Your task to perform on an android device: Open Youtube and go to "Your channel" Image 0: 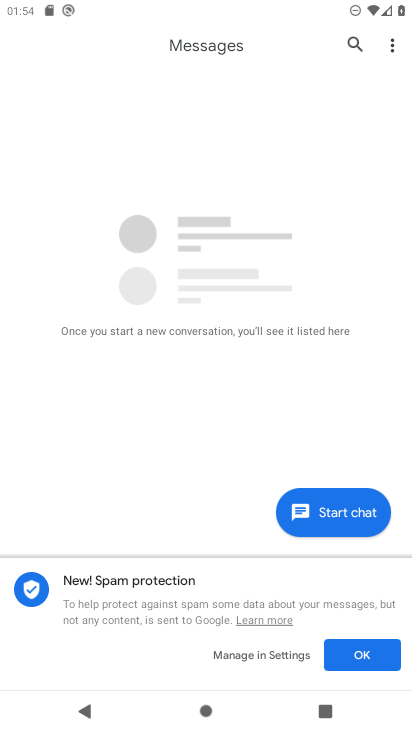
Step 0: press home button
Your task to perform on an android device: Open Youtube and go to "Your channel" Image 1: 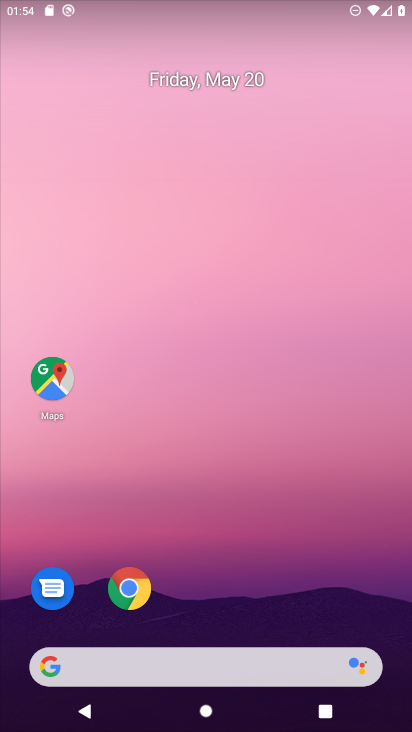
Step 1: drag from (389, 614) to (307, 123)
Your task to perform on an android device: Open Youtube and go to "Your channel" Image 2: 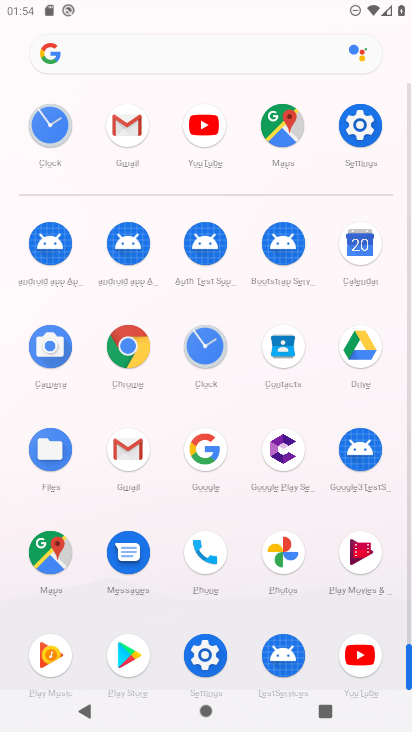
Step 2: click (358, 653)
Your task to perform on an android device: Open Youtube and go to "Your channel" Image 3: 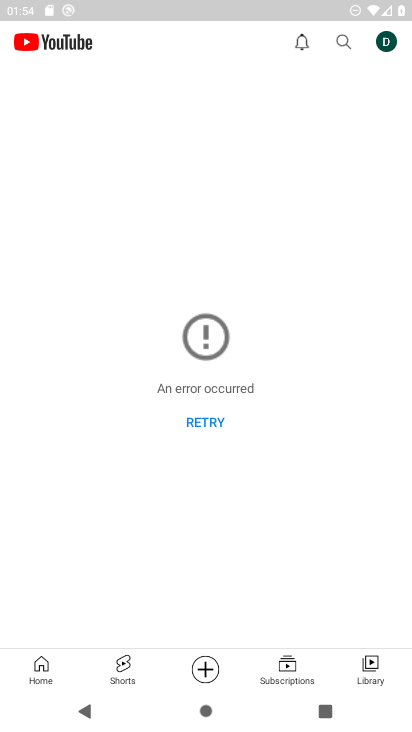
Step 3: click (384, 45)
Your task to perform on an android device: Open Youtube and go to "Your channel" Image 4: 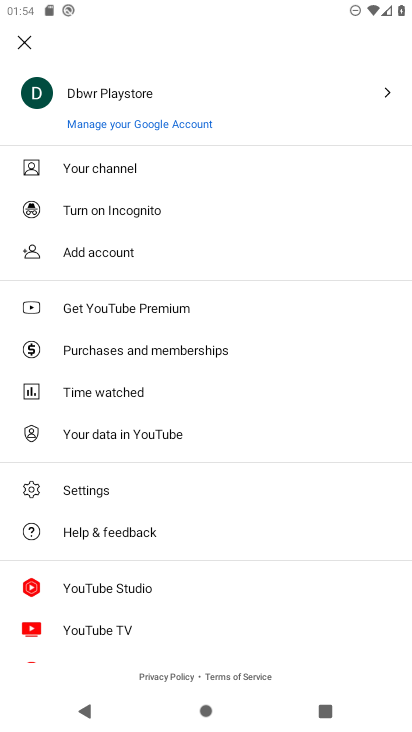
Step 4: click (86, 161)
Your task to perform on an android device: Open Youtube and go to "Your channel" Image 5: 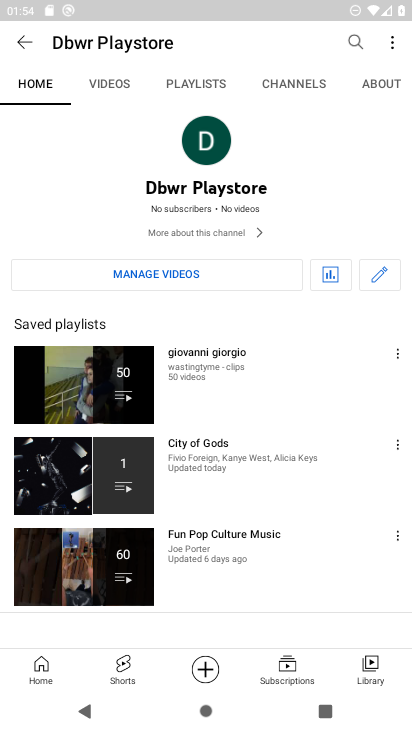
Step 5: task complete